Your task to perform on an android device: open a new tab in the chrome app Image 0: 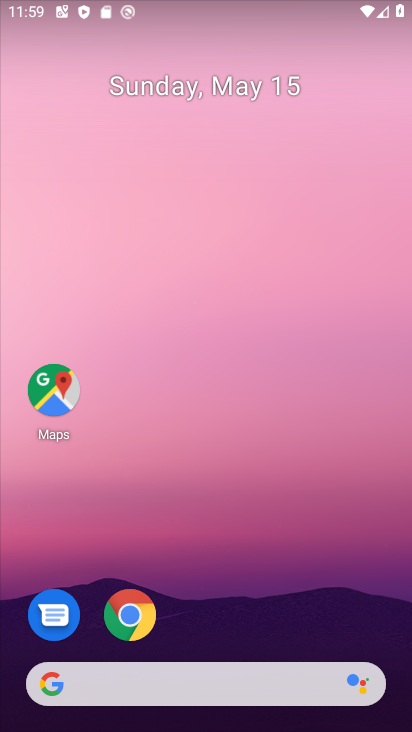
Step 0: drag from (348, 574) to (307, 173)
Your task to perform on an android device: open a new tab in the chrome app Image 1: 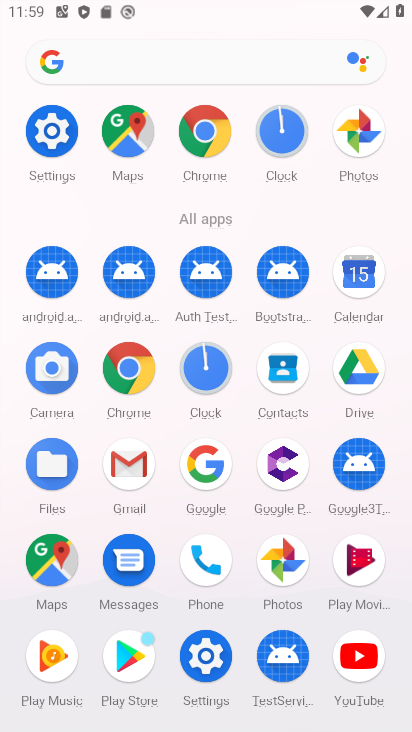
Step 1: click (136, 379)
Your task to perform on an android device: open a new tab in the chrome app Image 2: 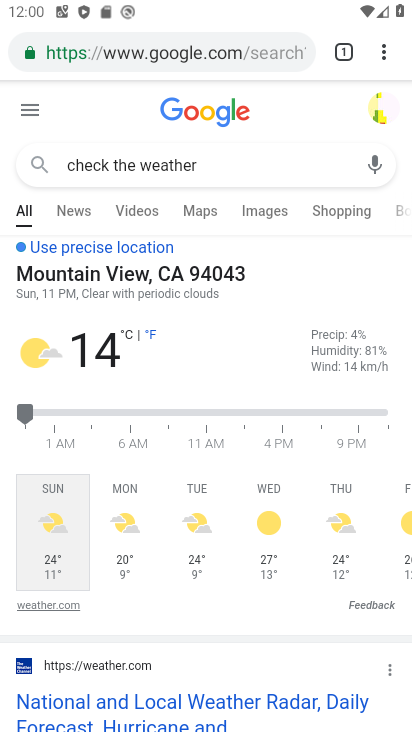
Step 2: click (338, 46)
Your task to perform on an android device: open a new tab in the chrome app Image 3: 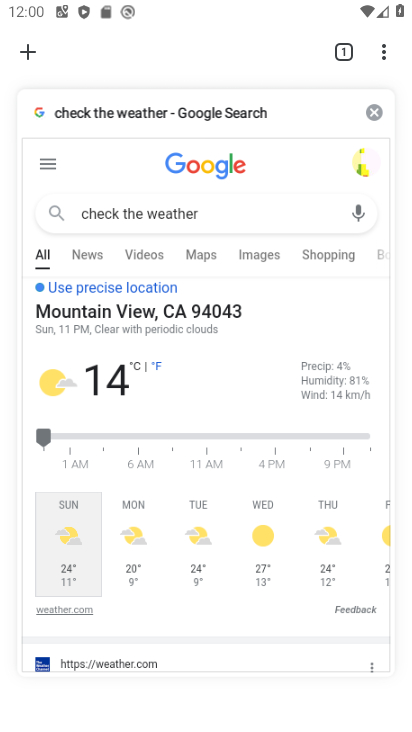
Step 3: click (28, 53)
Your task to perform on an android device: open a new tab in the chrome app Image 4: 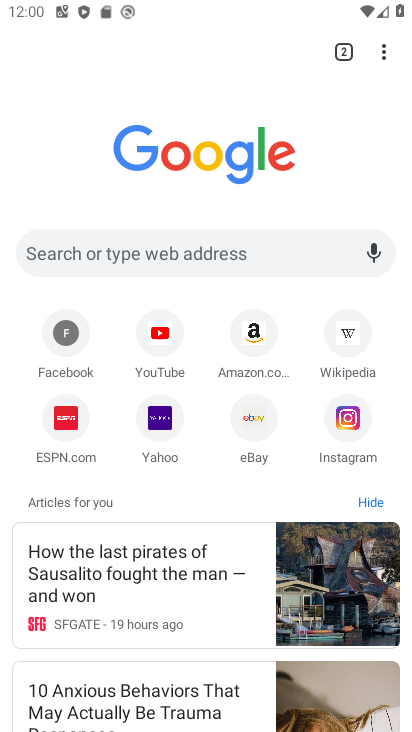
Step 4: task complete